Your task to perform on an android device: add a contact in the contacts app Image 0: 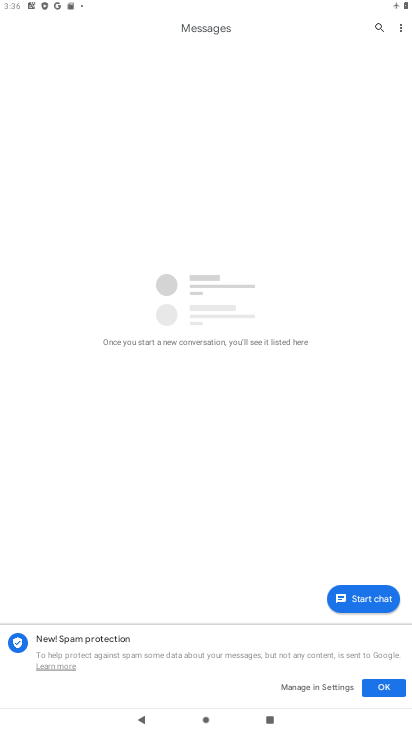
Step 0: press home button
Your task to perform on an android device: add a contact in the contacts app Image 1: 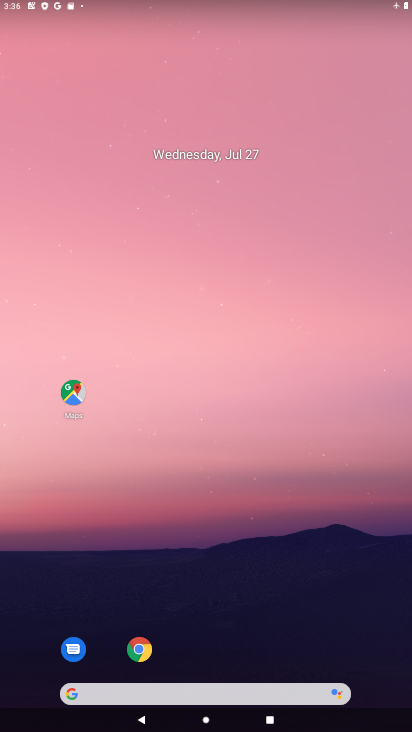
Step 1: drag from (263, 625) to (270, 49)
Your task to perform on an android device: add a contact in the contacts app Image 2: 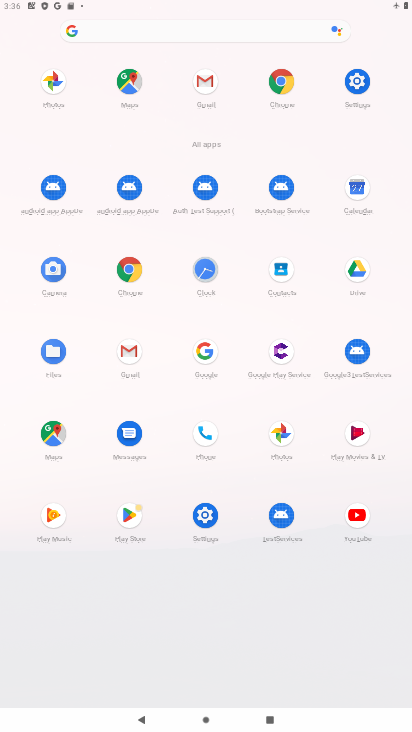
Step 2: click (276, 282)
Your task to perform on an android device: add a contact in the contacts app Image 3: 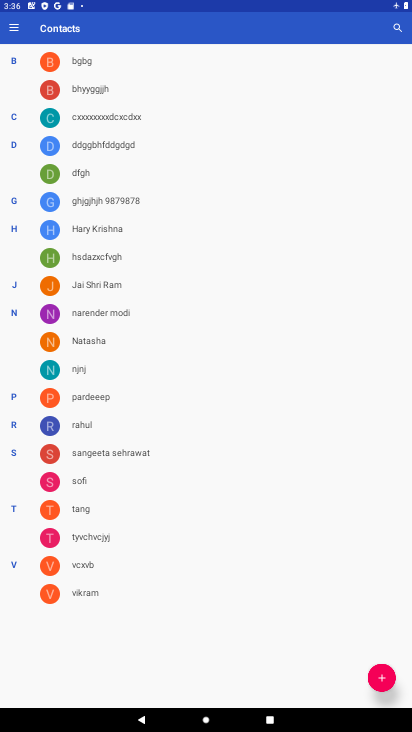
Step 3: task complete